Your task to perform on an android device: toggle notification dots Image 0: 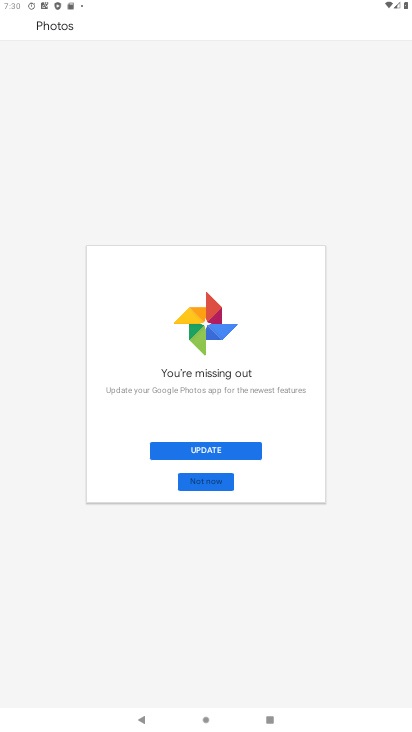
Step 0: press home button
Your task to perform on an android device: toggle notification dots Image 1: 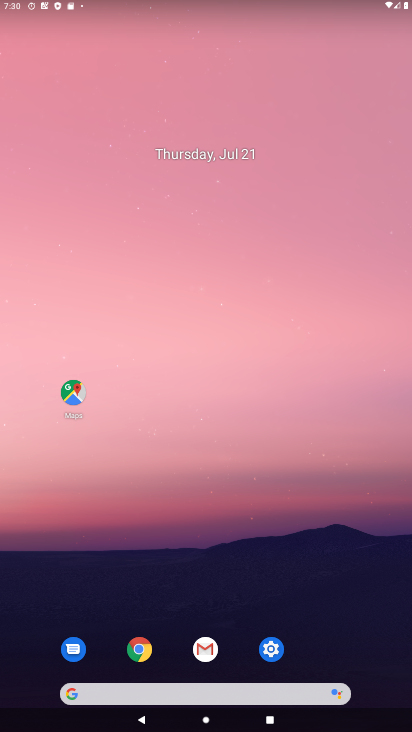
Step 1: click (273, 641)
Your task to perform on an android device: toggle notification dots Image 2: 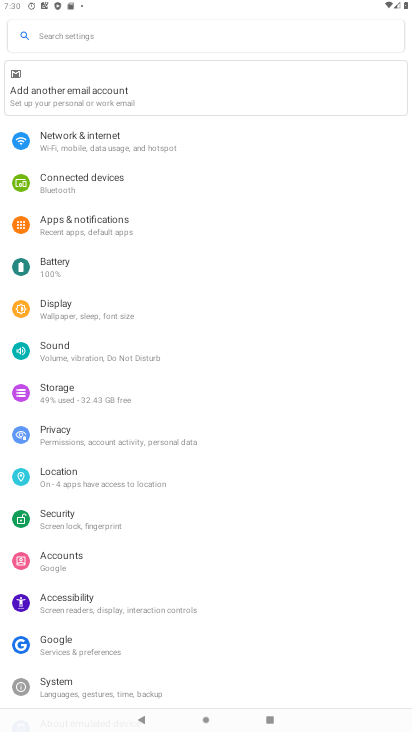
Step 2: click (81, 42)
Your task to perform on an android device: toggle notification dots Image 3: 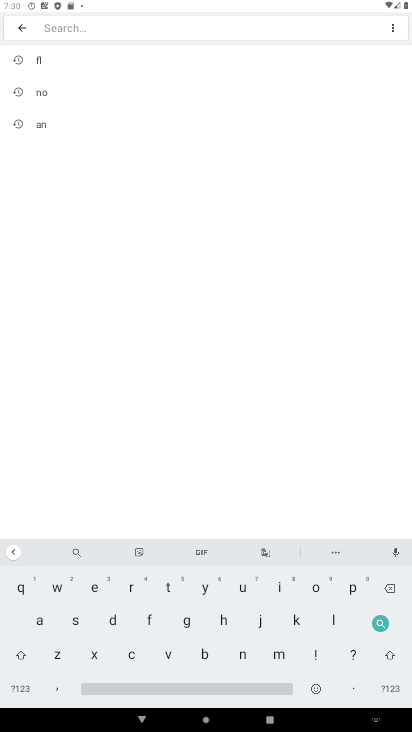
Step 3: click (242, 657)
Your task to perform on an android device: toggle notification dots Image 4: 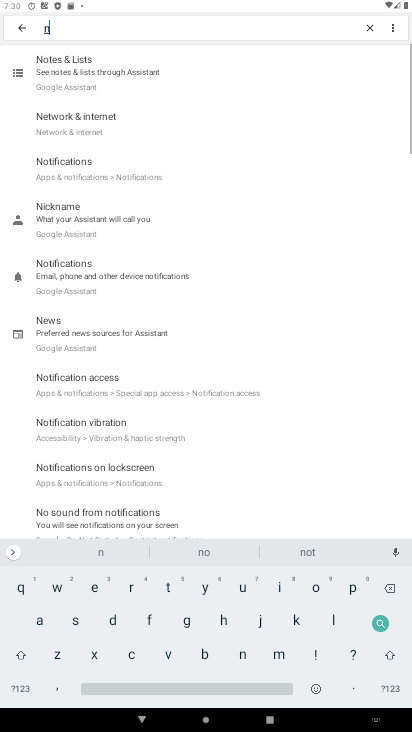
Step 4: click (317, 586)
Your task to perform on an android device: toggle notification dots Image 5: 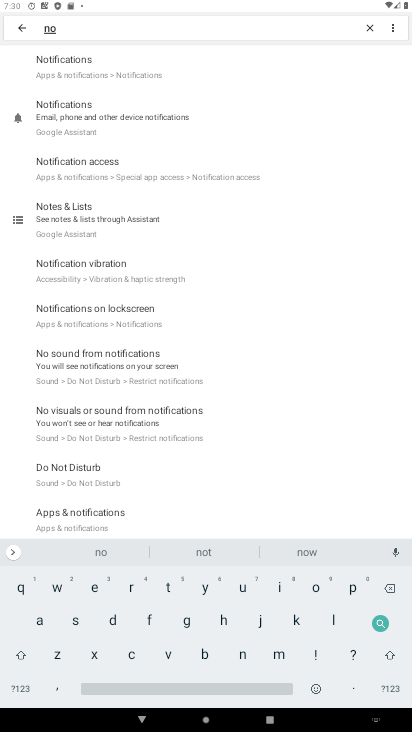
Step 5: click (143, 69)
Your task to perform on an android device: toggle notification dots Image 6: 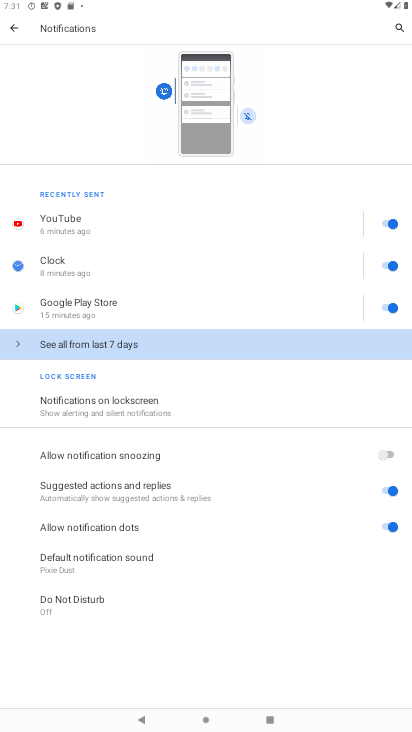
Step 6: click (226, 539)
Your task to perform on an android device: toggle notification dots Image 7: 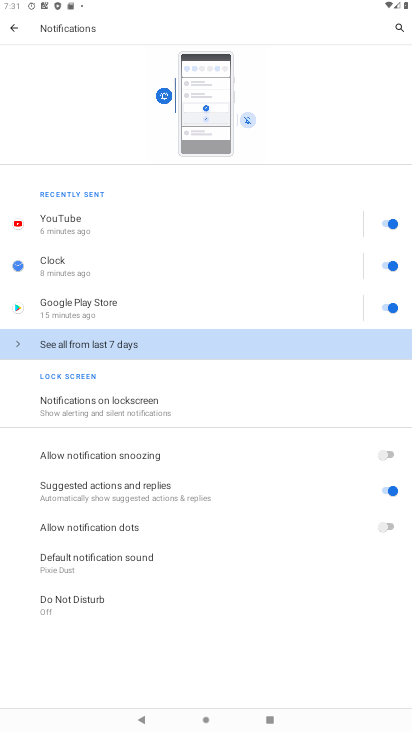
Step 7: click (226, 539)
Your task to perform on an android device: toggle notification dots Image 8: 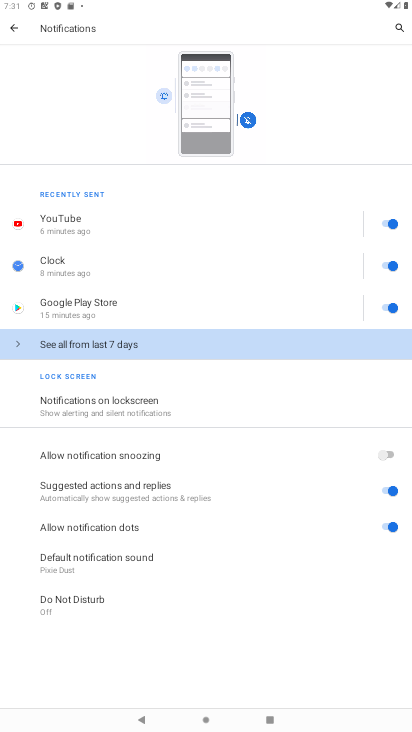
Step 8: task complete